Your task to perform on an android device: make emails show in primary in the gmail app Image 0: 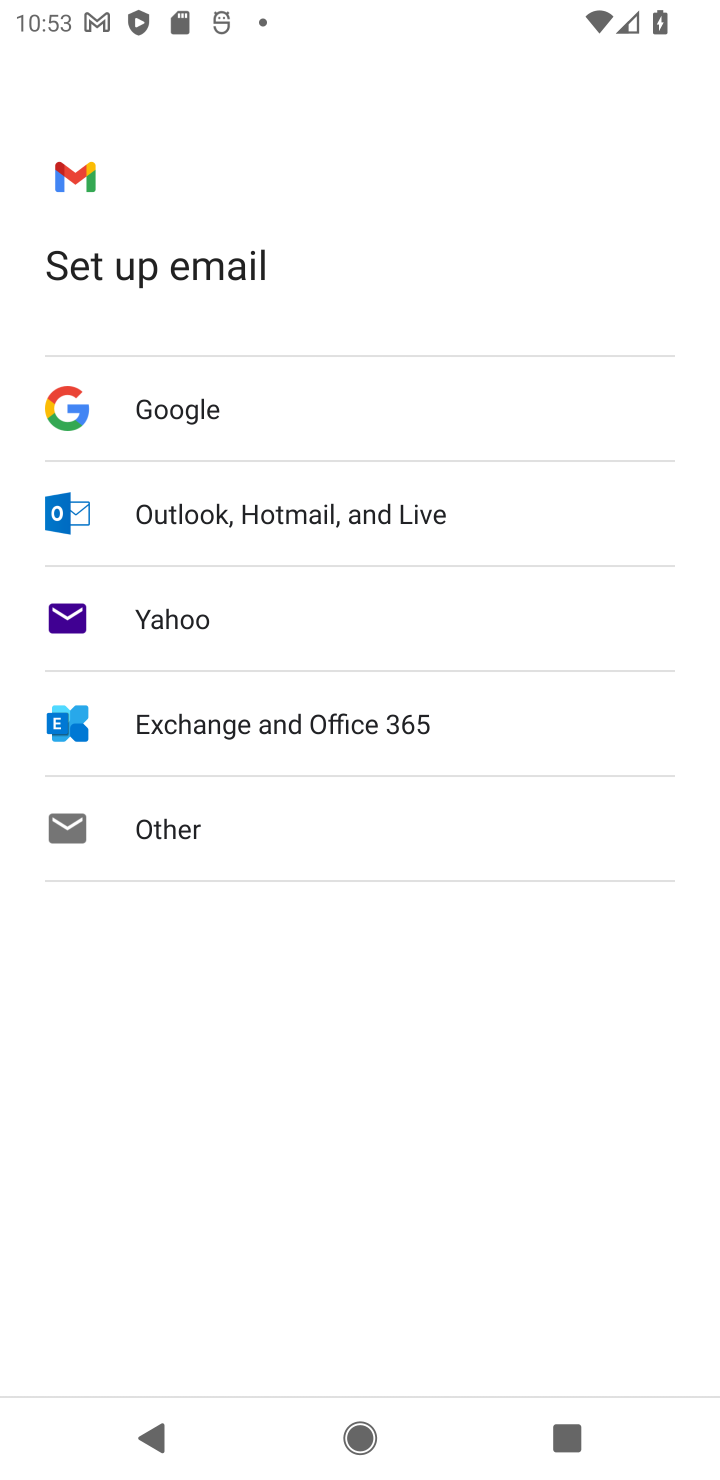
Step 0: press home button
Your task to perform on an android device: make emails show in primary in the gmail app Image 1: 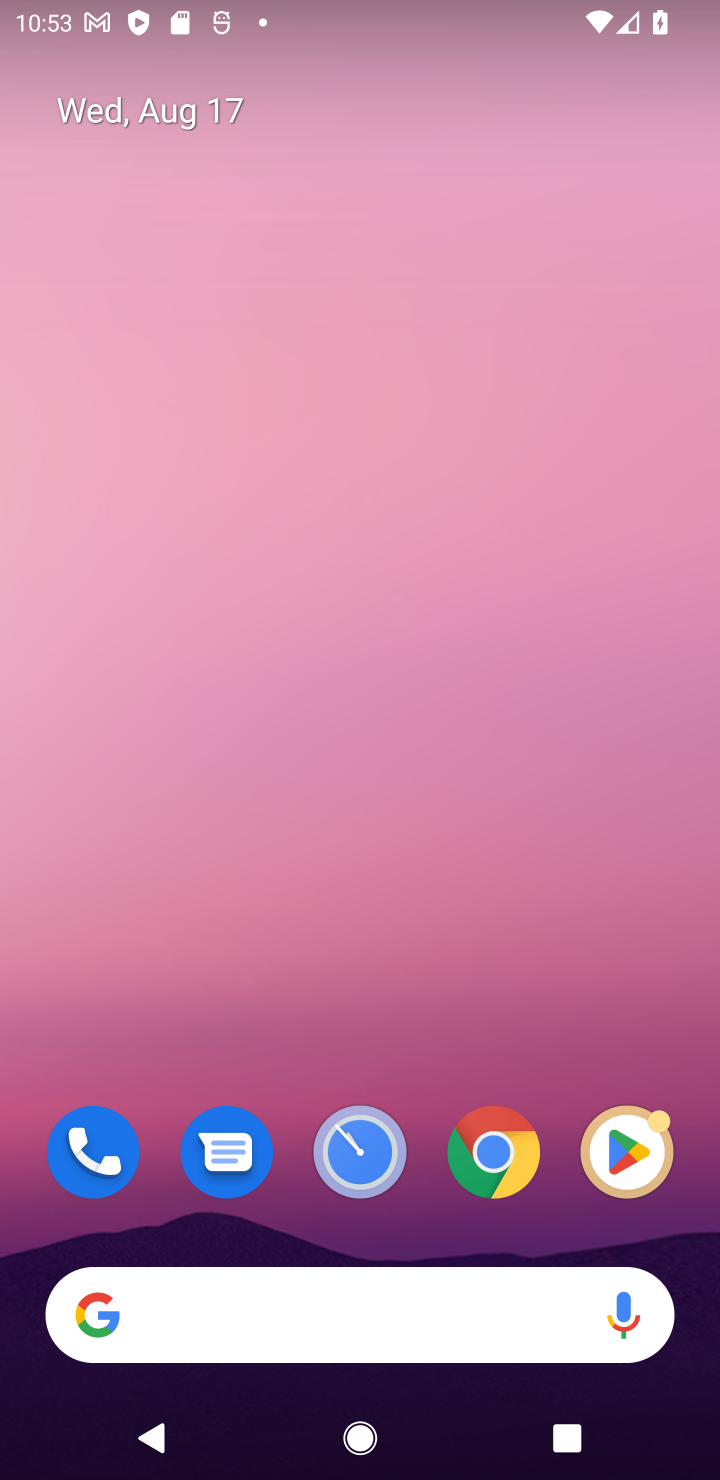
Step 1: drag from (681, 1268) to (375, 53)
Your task to perform on an android device: make emails show in primary in the gmail app Image 2: 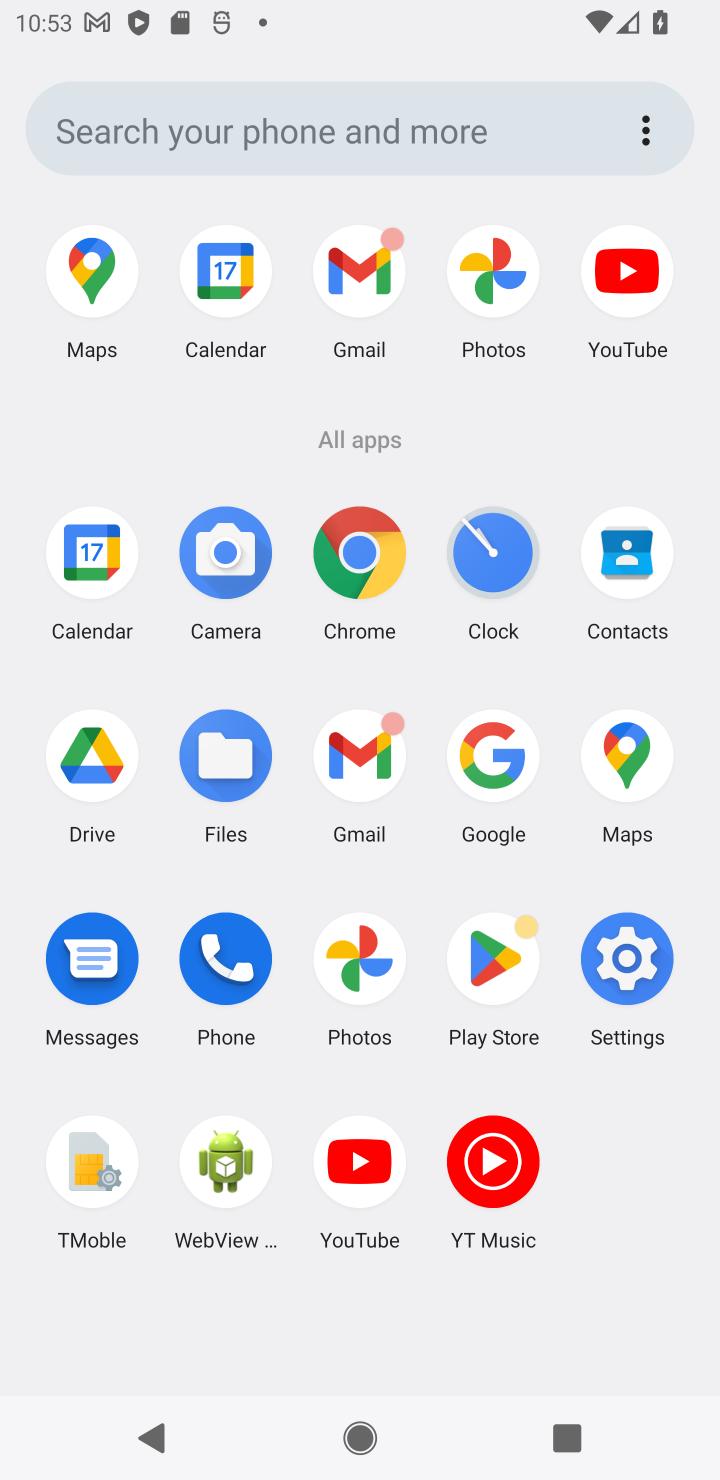
Step 2: click (379, 731)
Your task to perform on an android device: make emails show in primary in the gmail app Image 3: 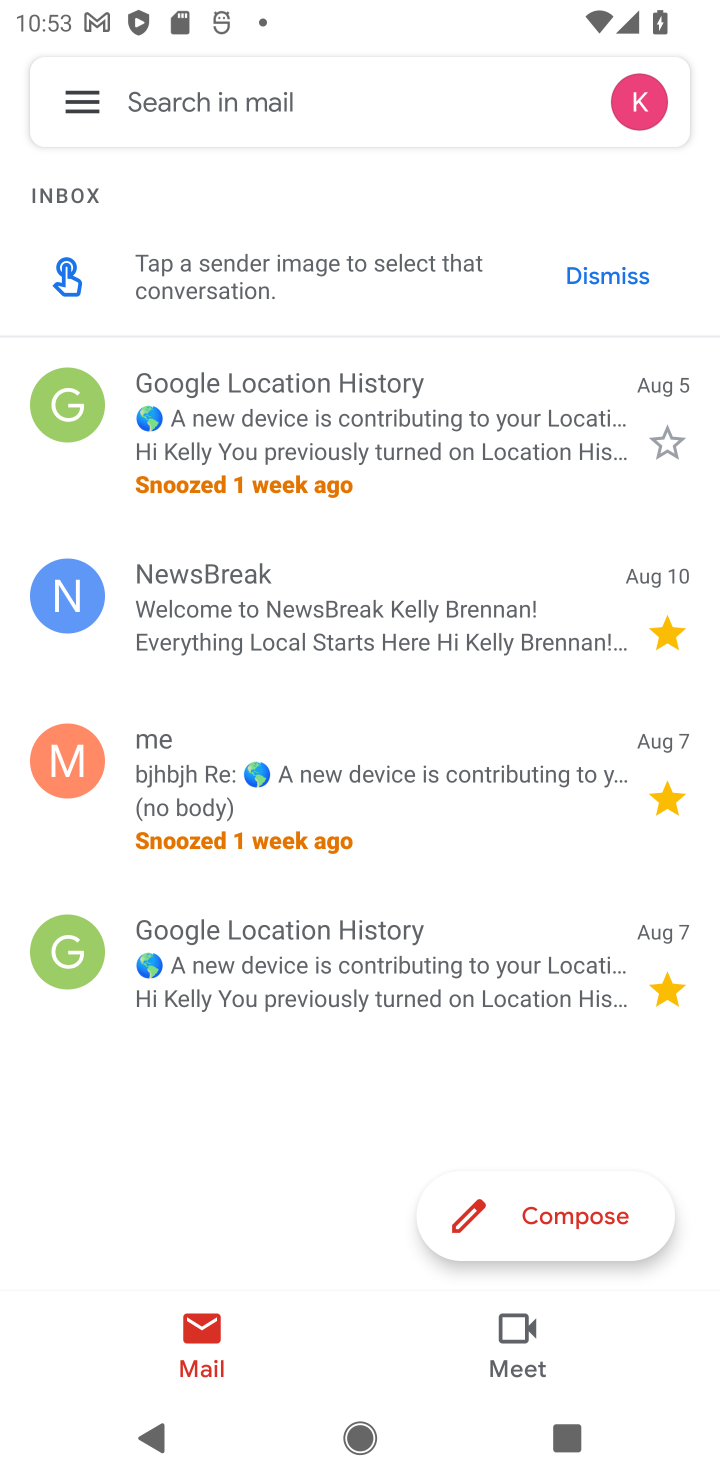
Step 3: task complete